Your task to perform on an android device: Go to notification settings Image 0: 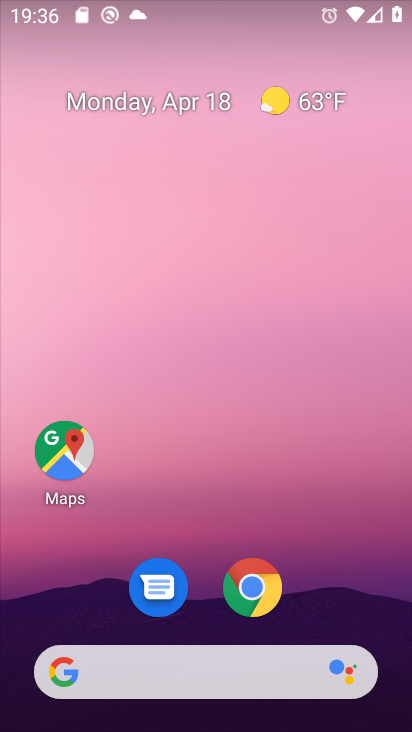
Step 0: drag from (316, 618) to (304, 74)
Your task to perform on an android device: Go to notification settings Image 1: 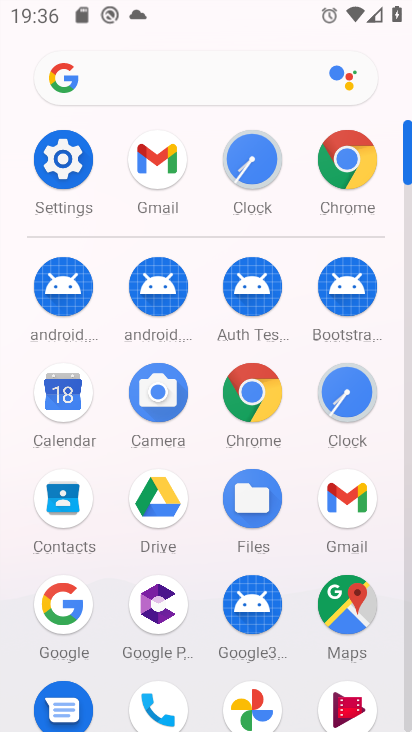
Step 1: click (77, 189)
Your task to perform on an android device: Go to notification settings Image 2: 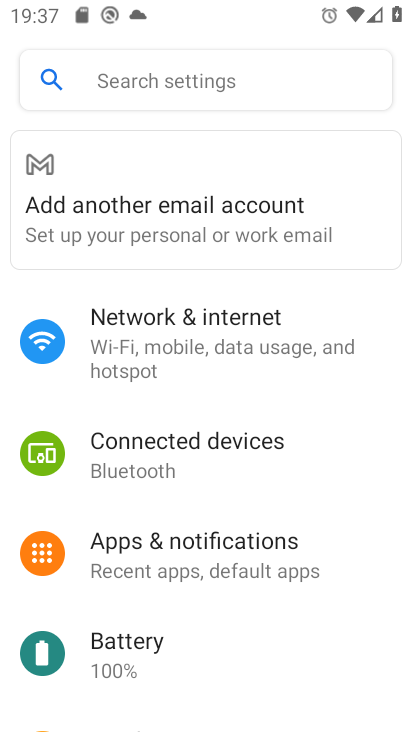
Step 2: drag from (235, 651) to (261, 410)
Your task to perform on an android device: Go to notification settings Image 3: 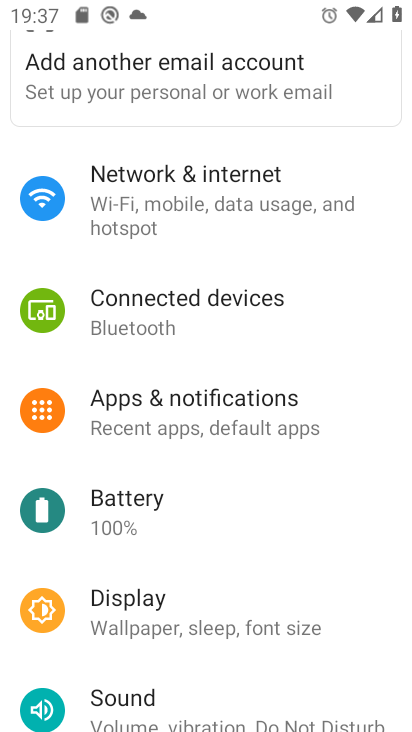
Step 3: drag from (228, 611) to (266, 448)
Your task to perform on an android device: Go to notification settings Image 4: 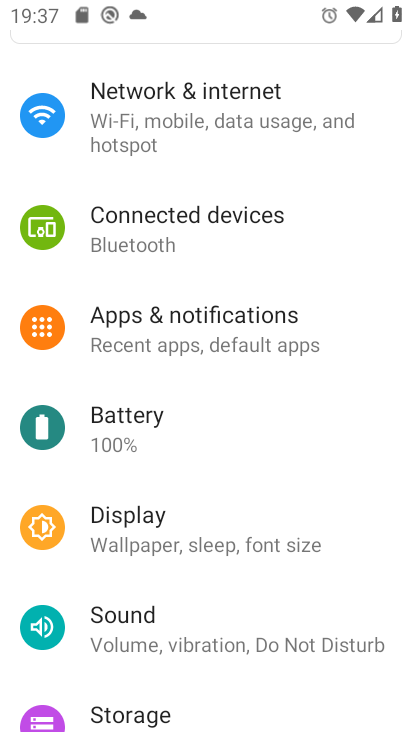
Step 4: click (272, 352)
Your task to perform on an android device: Go to notification settings Image 5: 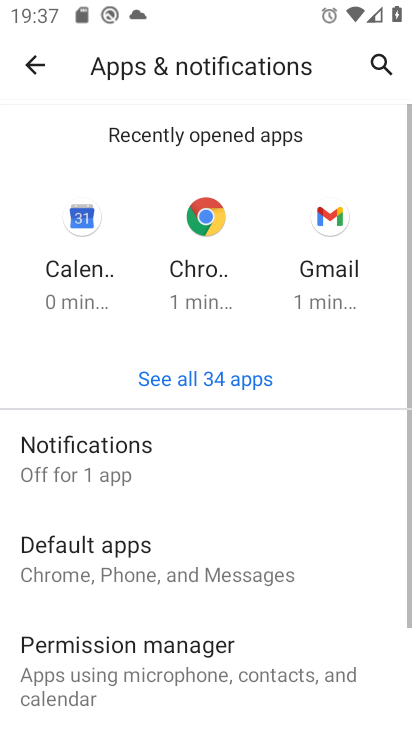
Step 5: drag from (234, 599) to (269, 427)
Your task to perform on an android device: Go to notification settings Image 6: 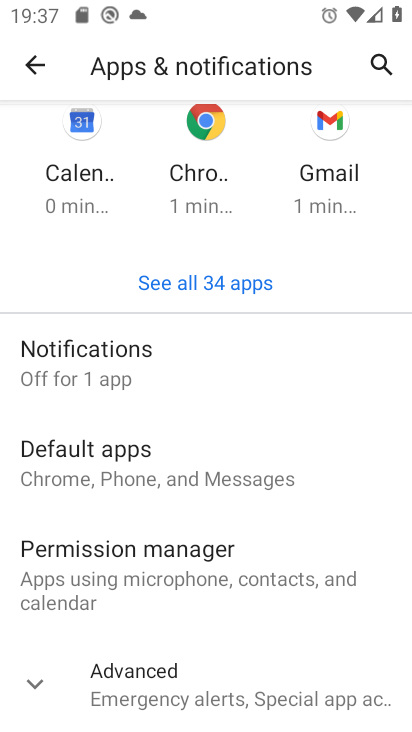
Step 6: click (250, 405)
Your task to perform on an android device: Go to notification settings Image 7: 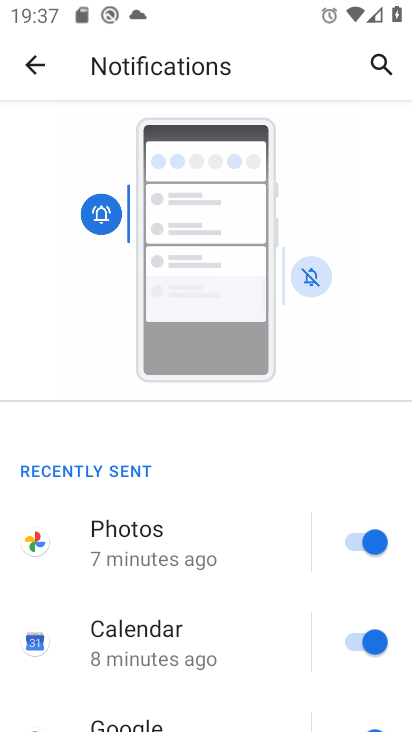
Step 7: drag from (250, 650) to (282, 275)
Your task to perform on an android device: Go to notification settings Image 8: 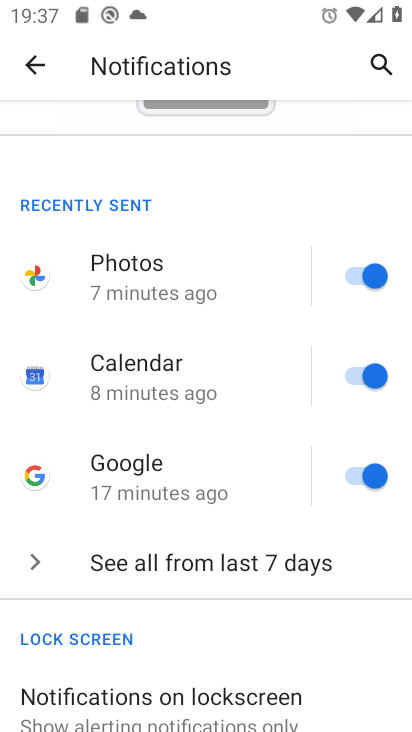
Step 8: drag from (261, 607) to (264, 434)
Your task to perform on an android device: Go to notification settings Image 9: 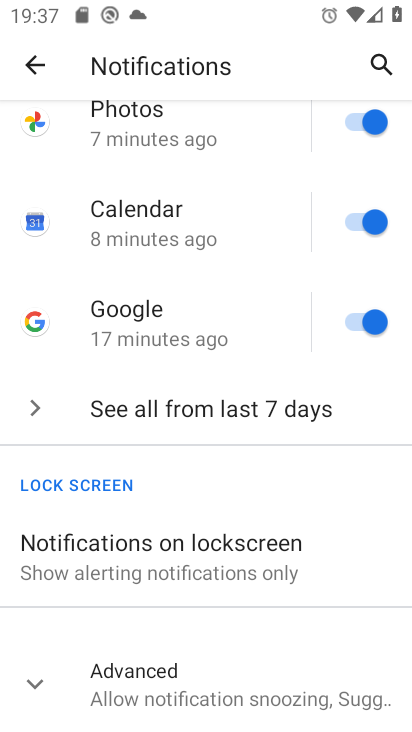
Step 9: click (235, 663)
Your task to perform on an android device: Go to notification settings Image 10: 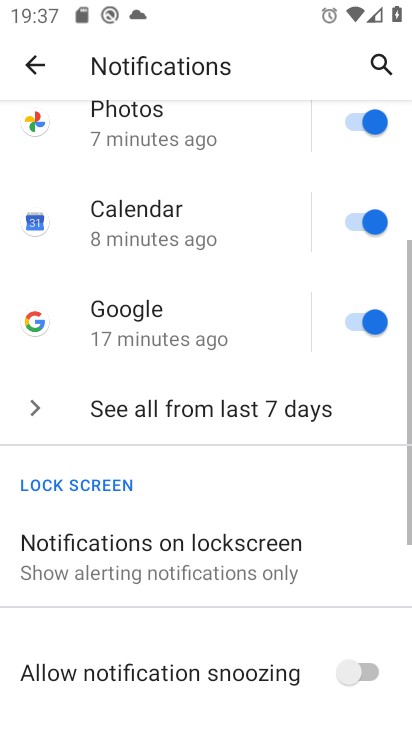
Step 10: task complete